Your task to perform on an android device: turn off notifications settings in the gmail app Image 0: 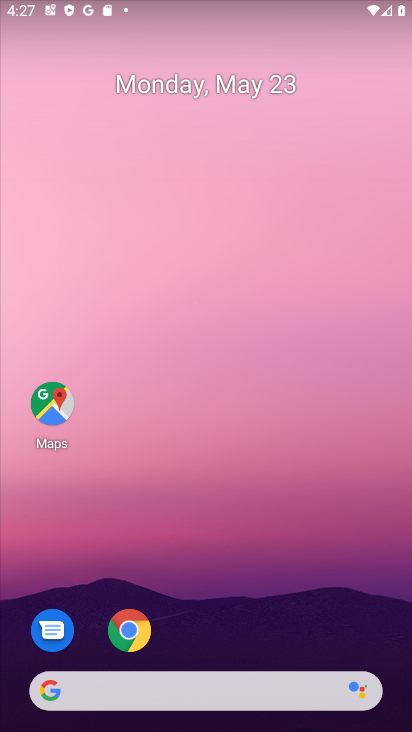
Step 0: drag from (198, 617) to (235, 62)
Your task to perform on an android device: turn off notifications settings in the gmail app Image 1: 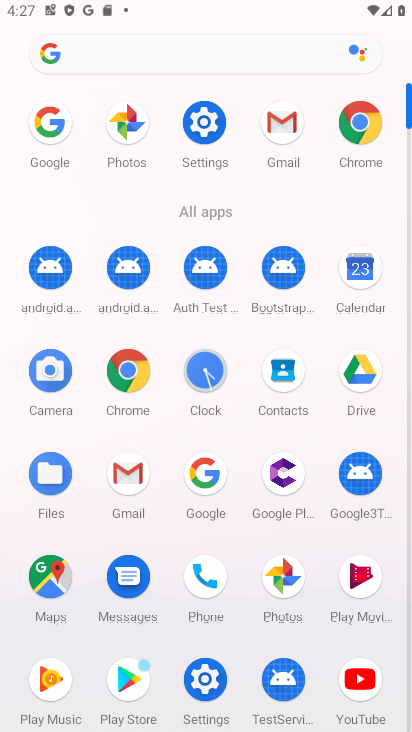
Step 1: click (120, 464)
Your task to perform on an android device: turn off notifications settings in the gmail app Image 2: 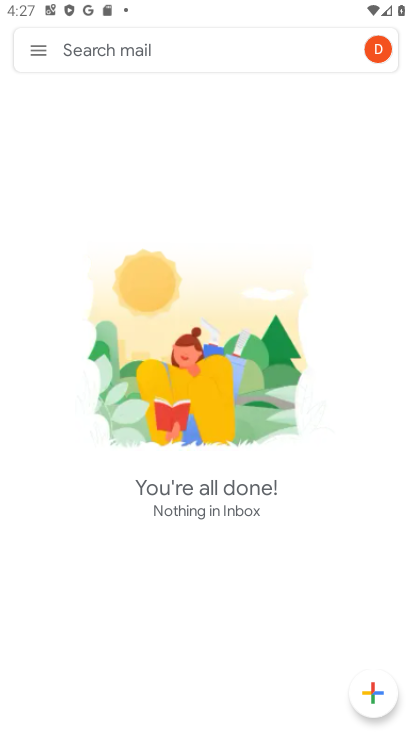
Step 2: click (31, 53)
Your task to perform on an android device: turn off notifications settings in the gmail app Image 3: 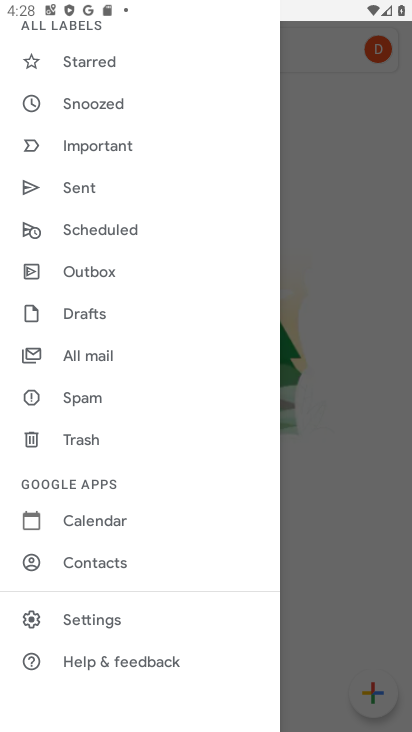
Step 3: click (131, 608)
Your task to perform on an android device: turn off notifications settings in the gmail app Image 4: 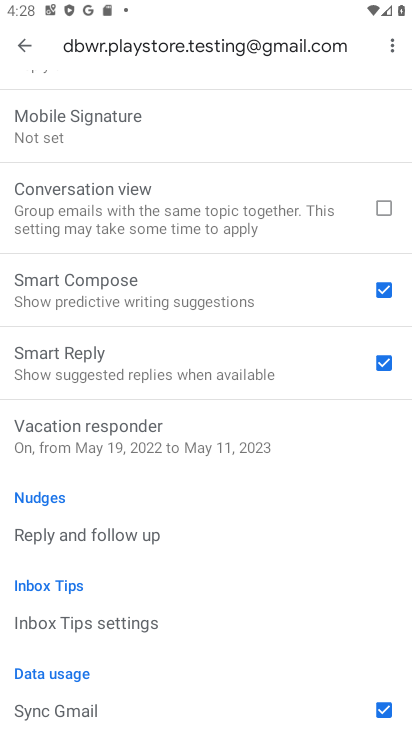
Step 4: click (19, 40)
Your task to perform on an android device: turn off notifications settings in the gmail app Image 5: 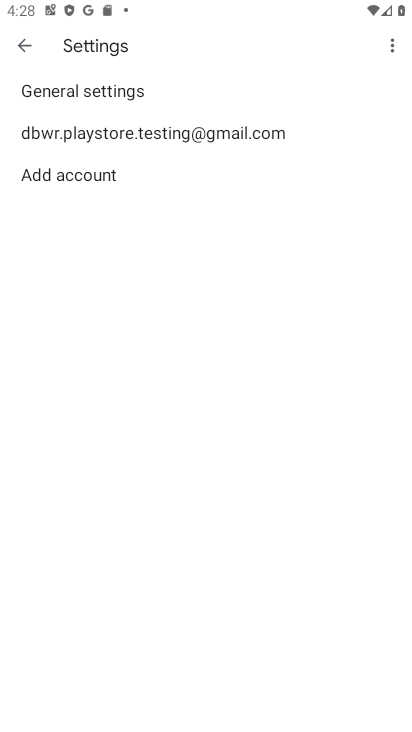
Step 5: click (149, 87)
Your task to perform on an android device: turn off notifications settings in the gmail app Image 6: 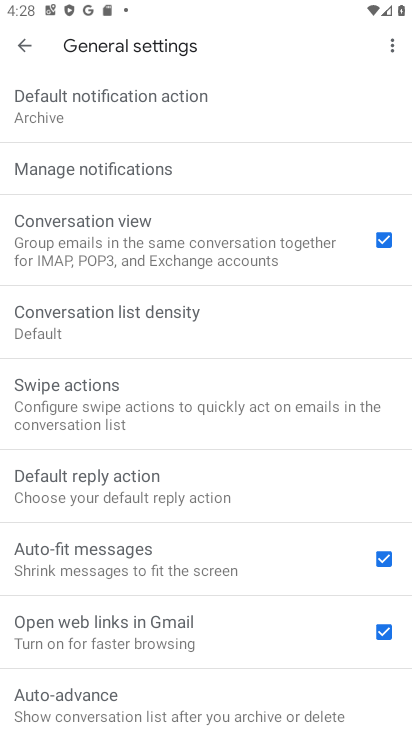
Step 6: click (178, 159)
Your task to perform on an android device: turn off notifications settings in the gmail app Image 7: 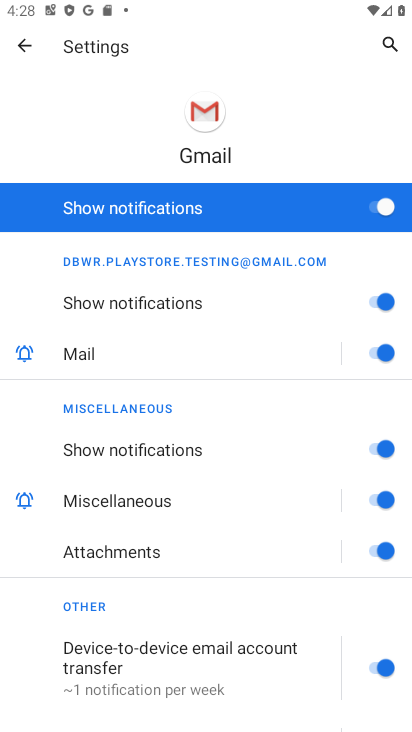
Step 7: click (372, 203)
Your task to perform on an android device: turn off notifications settings in the gmail app Image 8: 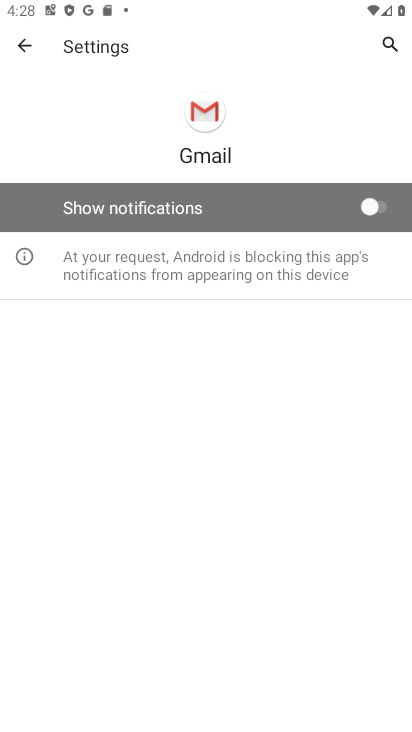
Step 8: task complete